Your task to perform on an android device: Open Chrome and go to the settings page Image 0: 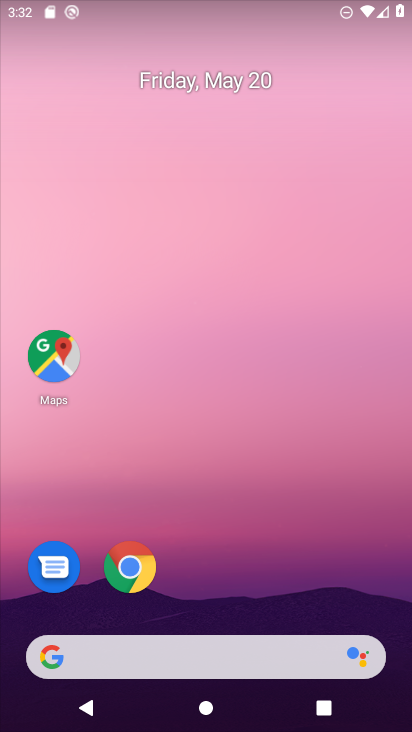
Step 0: click (129, 570)
Your task to perform on an android device: Open Chrome and go to the settings page Image 1: 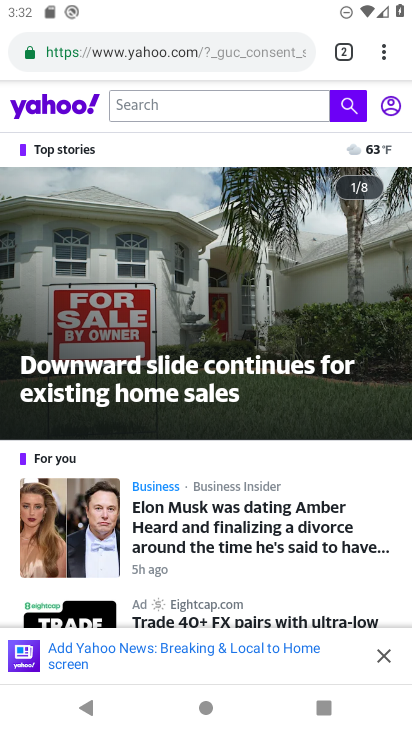
Step 1: click (383, 56)
Your task to perform on an android device: Open Chrome and go to the settings page Image 2: 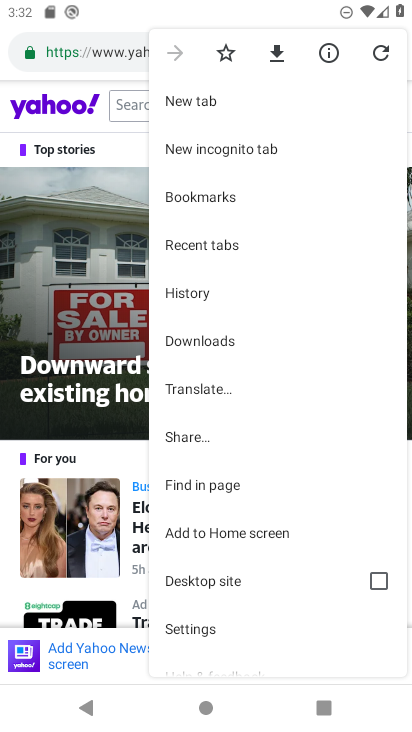
Step 2: click (179, 629)
Your task to perform on an android device: Open Chrome and go to the settings page Image 3: 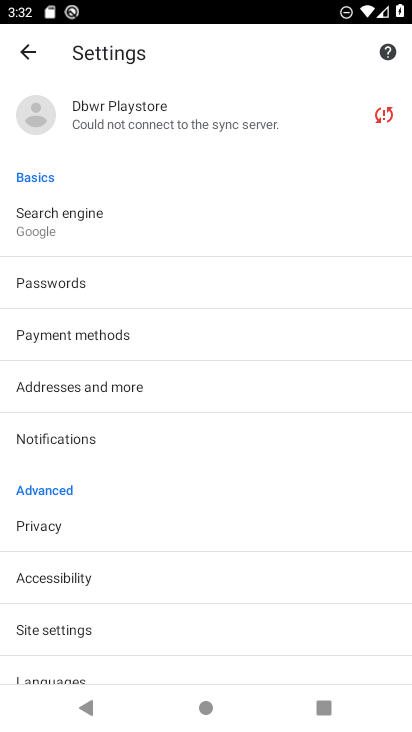
Step 3: task complete